Your task to perform on an android device: set default search engine in the chrome app Image 0: 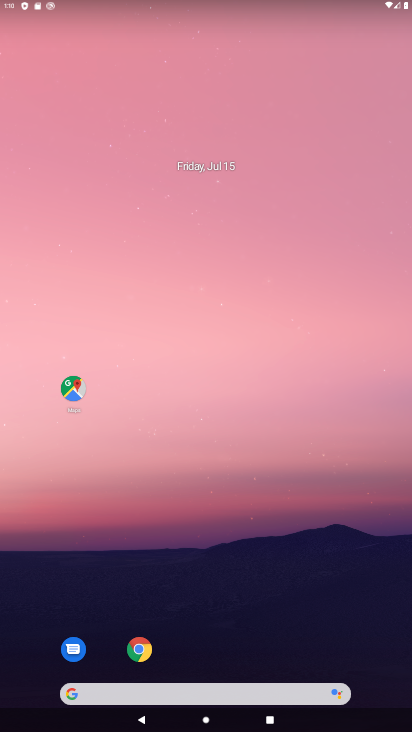
Step 0: drag from (328, 618) to (257, 20)
Your task to perform on an android device: set default search engine in the chrome app Image 1: 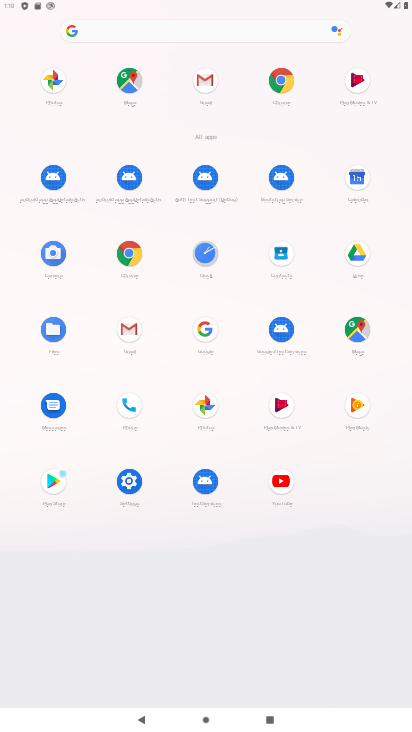
Step 1: click (129, 247)
Your task to perform on an android device: set default search engine in the chrome app Image 2: 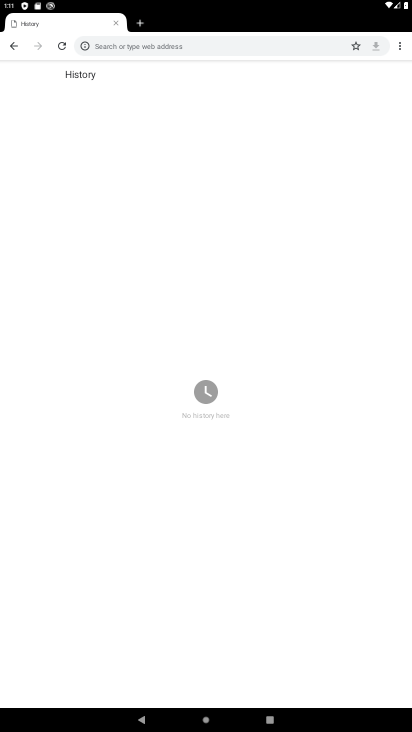
Step 2: drag from (401, 41) to (350, 264)
Your task to perform on an android device: set default search engine in the chrome app Image 3: 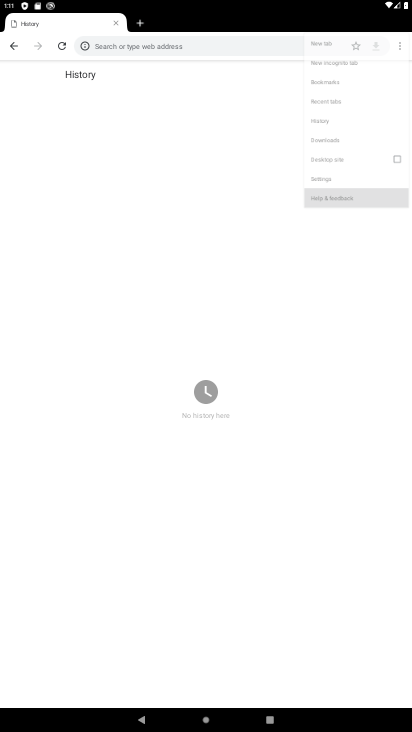
Step 3: click (326, 208)
Your task to perform on an android device: set default search engine in the chrome app Image 4: 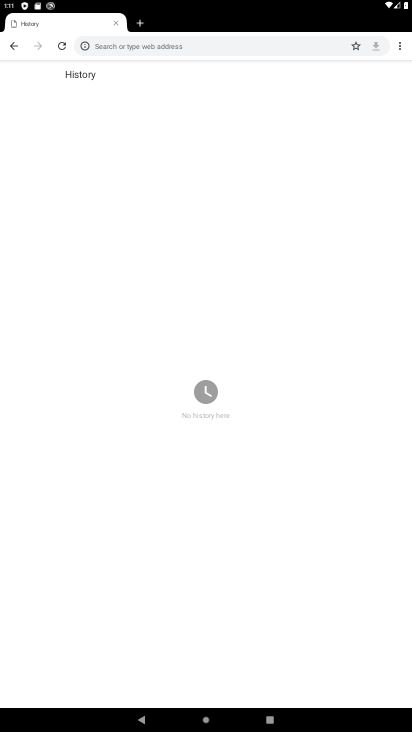
Step 4: drag from (394, 43) to (312, 201)
Your task to perform on an android device: set default search engine in the chrome app Image 5: 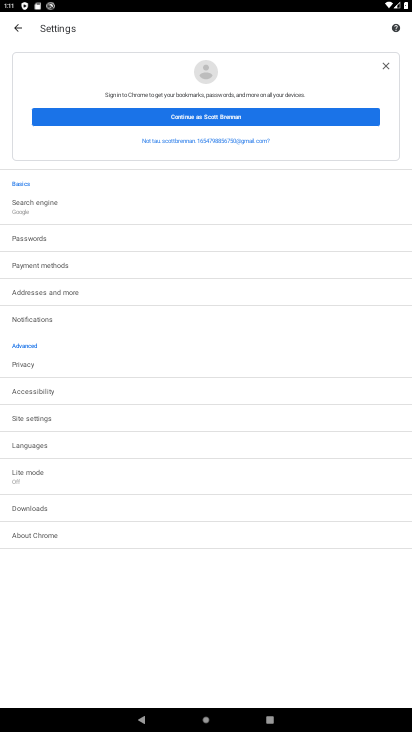
Step 5: click (41, 198)
Your task to perform on an android device: set default search engine in the chrome app Image 6: 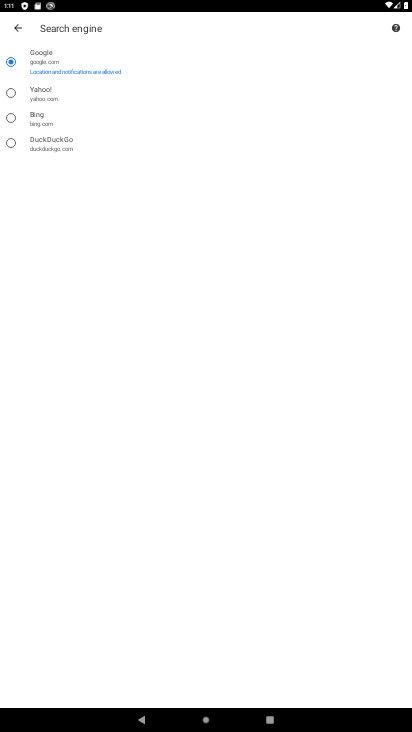
Step 6: task complete